Your task to perform on an android device: What's on my calendar tomorrow? Image 0: 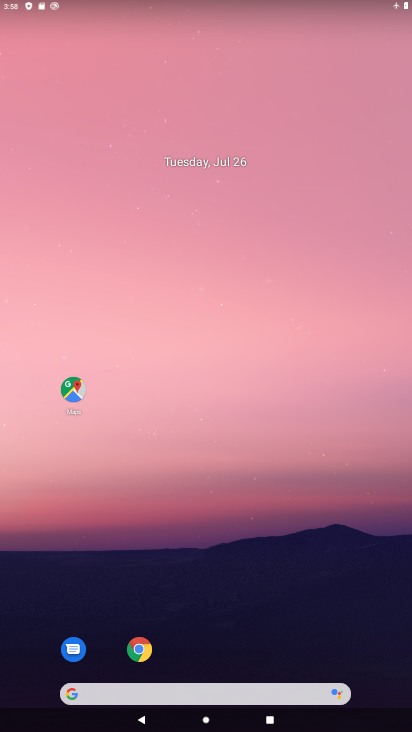
Step 0: drag from (198, 652) to (158, 184)
Your task to perform on an android device: What's on my calendar tomorrow? Image 1: 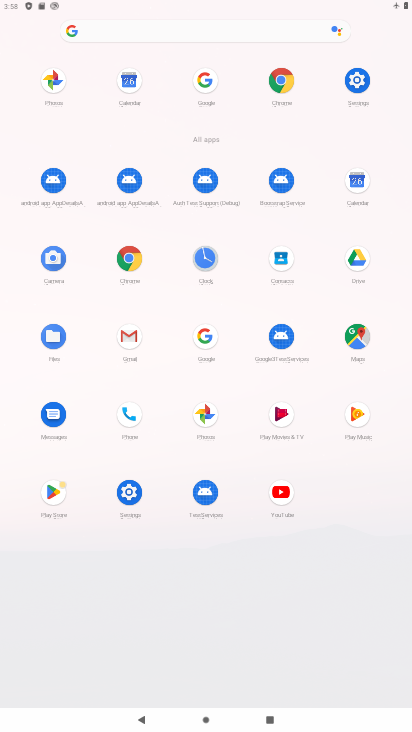
Step 1: click (351, 173)
Your task to perform on an android device: What's on my calendar tomorrow? Image 2: 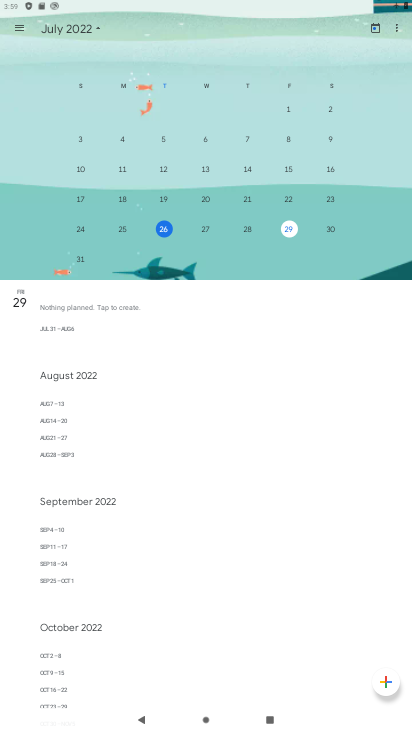
Step 2: click (213, 229)
Your task to perform on an android device: What's on my calendar tomorrow? Image 3: 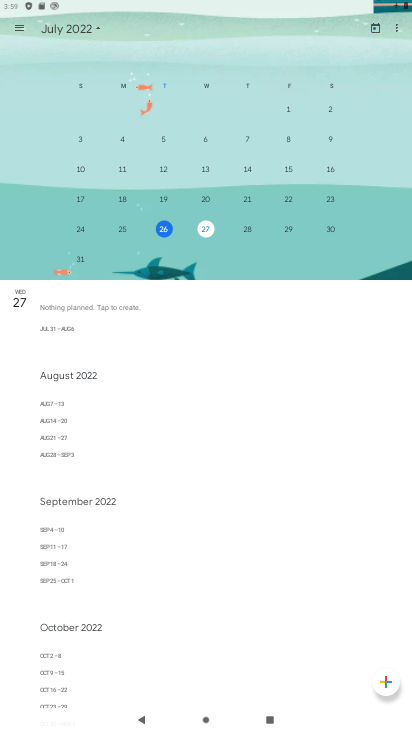
Step 3: task complete